Your task to perform on an android device: Go to wifi settings Image 0: 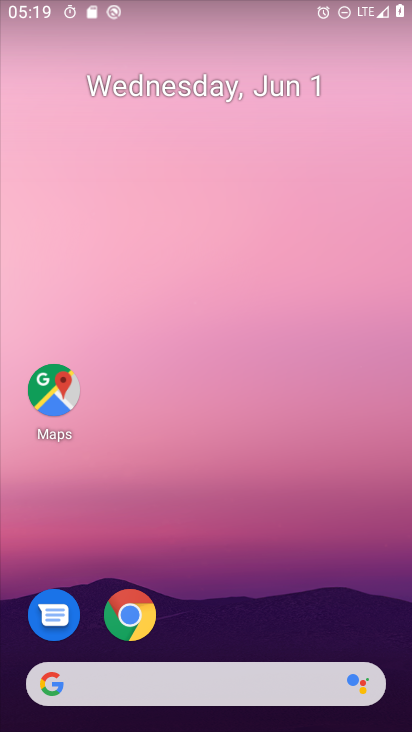
Step 0: drag from (280, 648) to (321, 14)
Your task to perform on an android device: Go to wifi settings Image 1: 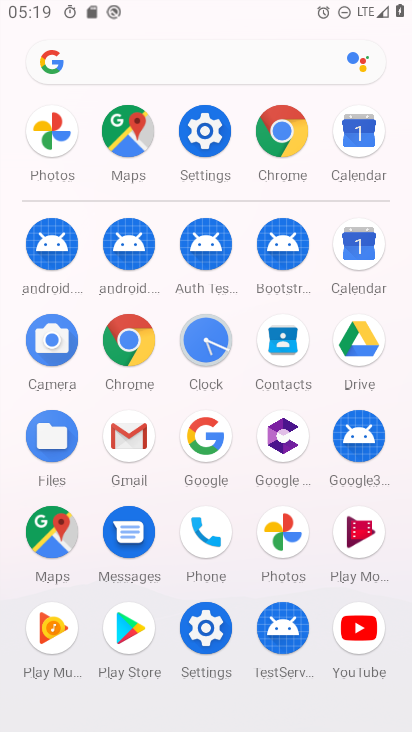
Step 1: click (203, 144)
Your task to perform on an android device: Go to wifi settings Image 2: 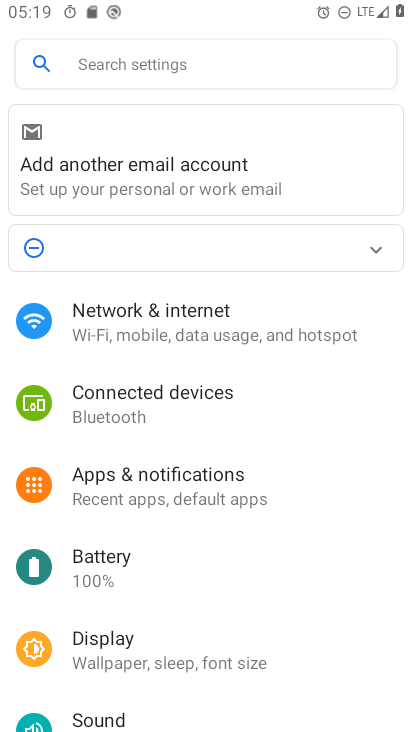
Step 2: click (183, 322)
Your task to perform on an android device: Go to wifi settings Image 3: 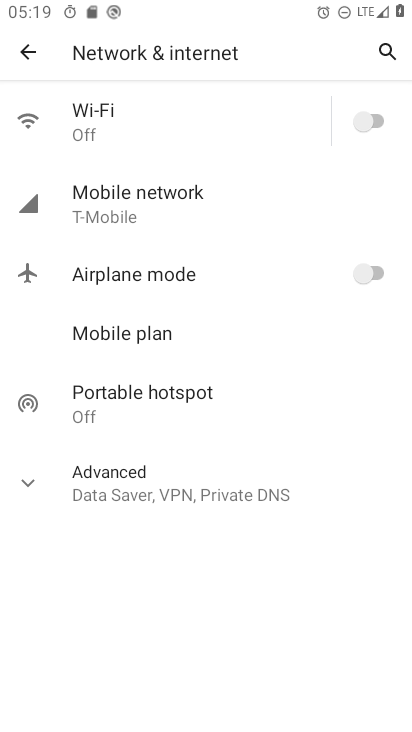
Step 3: click (146, 118)
Your task to perform on an android device: Go to wifi settings Image 4: 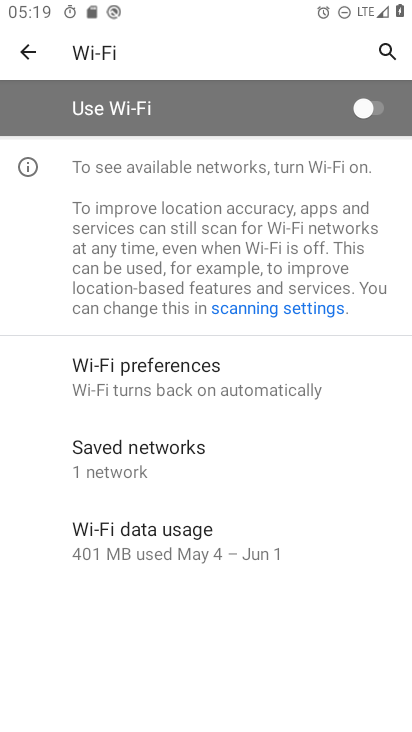
Step 4: task complete